Your task to perform on an android device: What is the capital of Japan? Image 0: 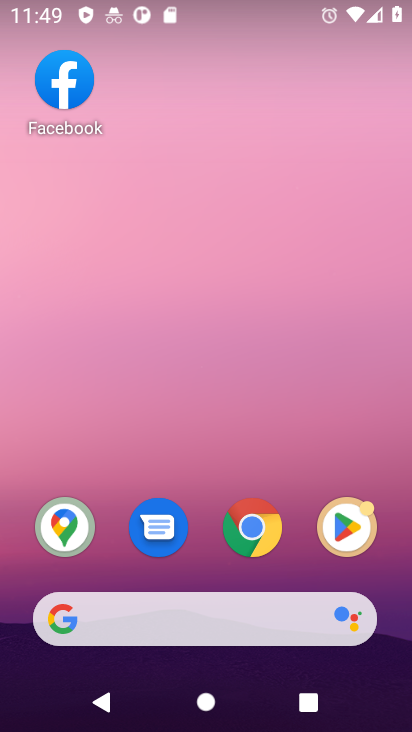
Step 0: click (246, 324)
Your task to perform on an android device: What is the capital of Japan? Image 1: 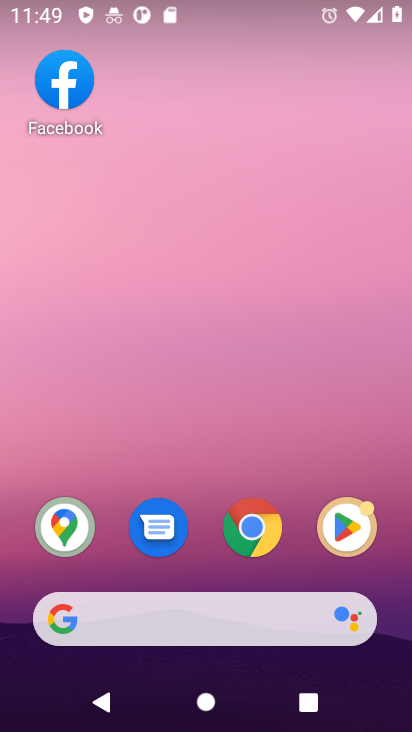
Step 1: drag from (183, 582) to (169, 175)
Your task to perform on an android device: What is the capital of Japan? Image 2: 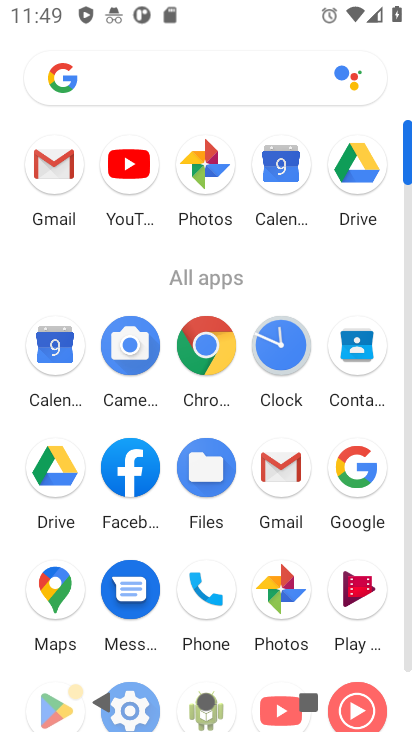
Step 2: click (192, 354)
Your task to perform on an android device: What is the capital of Japan? Image 3: 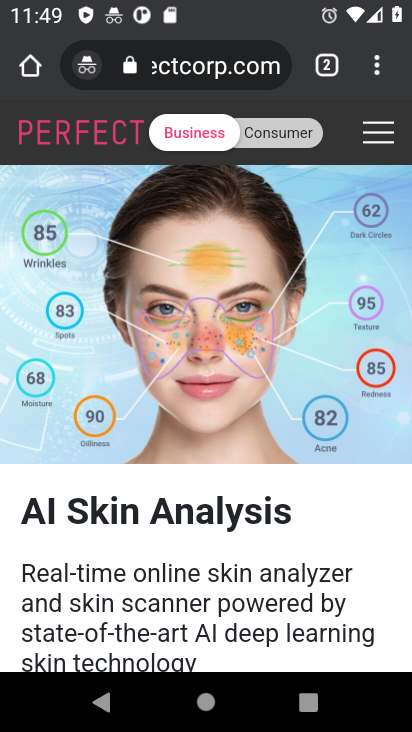
Step 3: click (251, 62)
Your task to perform on an android device: What is the capital of Japan? Image 4: 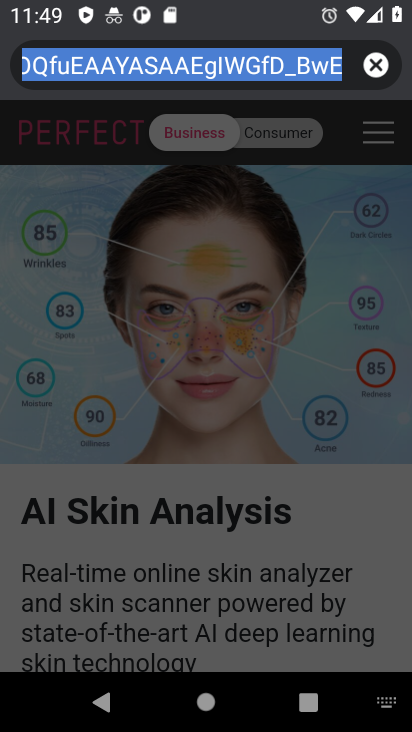
Step 4: type "capital of japan ?"
Your task to perform on an android device: What is the capital of Japan? Image 5: 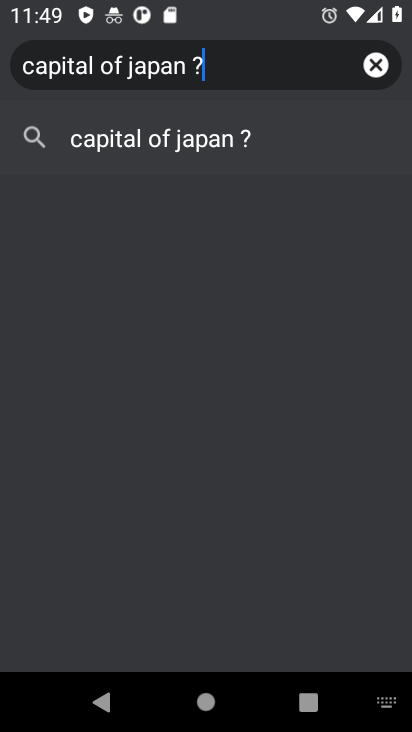
Step 5: click (261, 59)
Your task to perform on an android device: What is the capital of Japan? Image 6: 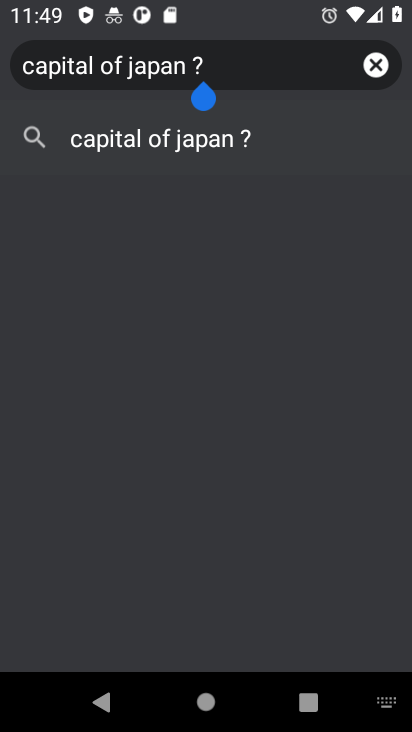
Step 6: click (205, 152)
Your task to perform on an android device: What is the capital of Japan? Image 7: 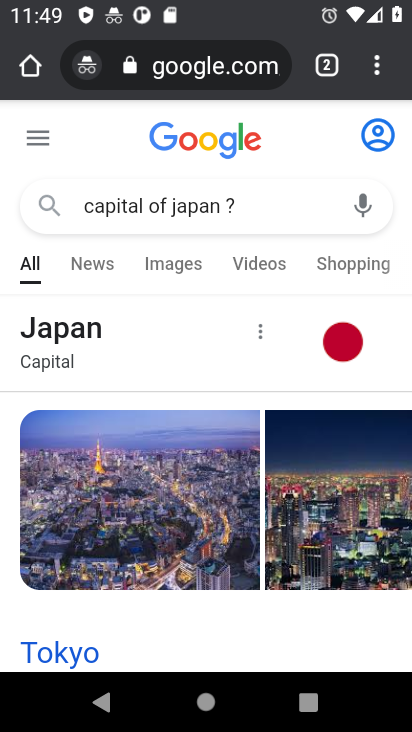
Step 7: task complete